Your task to perform on an android device: Go to battery settings Image 0: 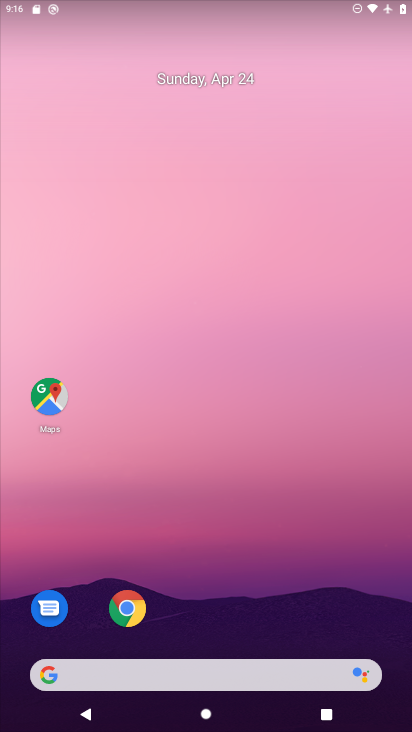
Step 0: drag from (208, 603) to (207, 146)
Your task to perform on an android device: Go to battery settings Image 1: 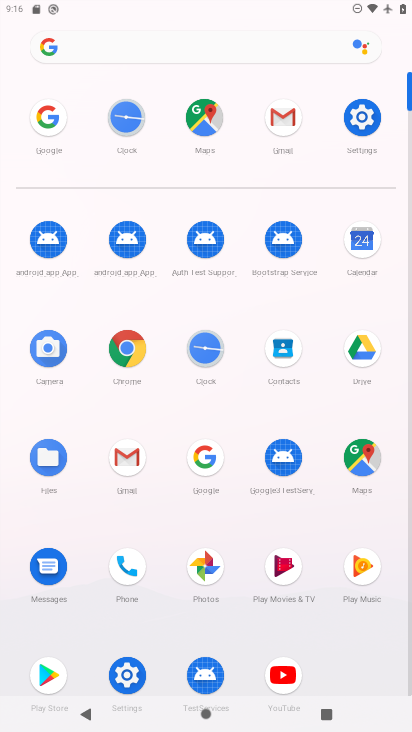
Step 1: click (349, 110)
Your task to perform on an android device: Go to battery settings Image 2: 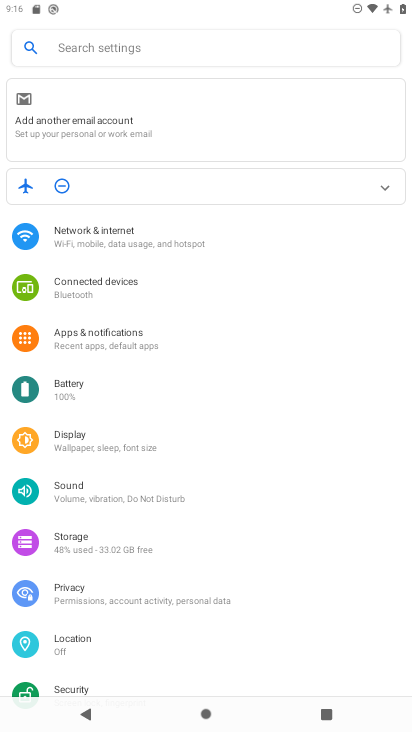
Step 2: click (97, 391)
Your task to perform on an android device: Go to battery settings Image 3: 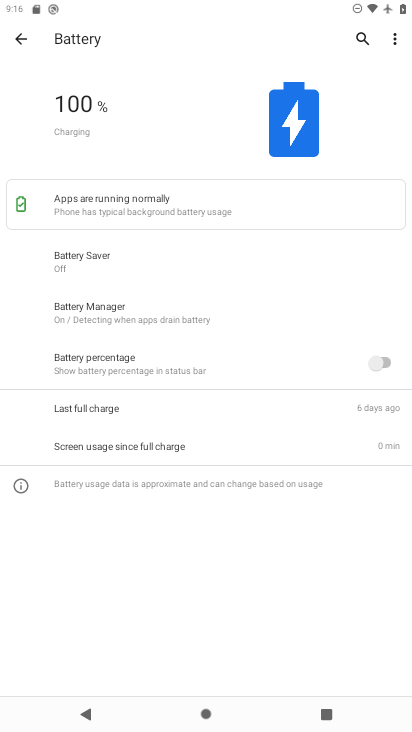
Step 3: task complete